Your task to perform on an android device: What's the weather going to be tomorrow? Image 0: 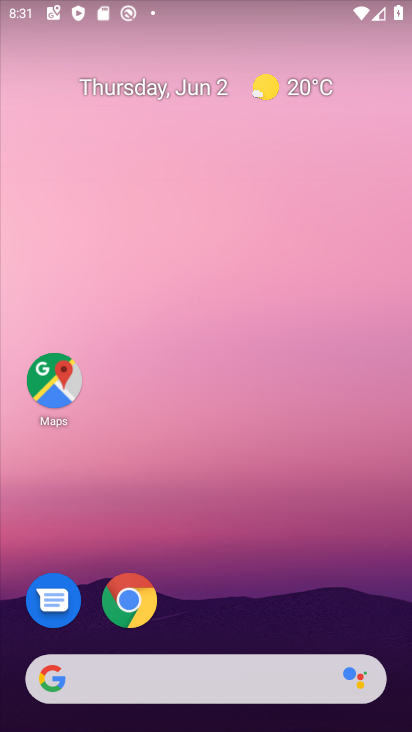
Step 0: click (273, 91)
Your task to perform on an android device: What's the weather going to be tomorrow? Image 1: 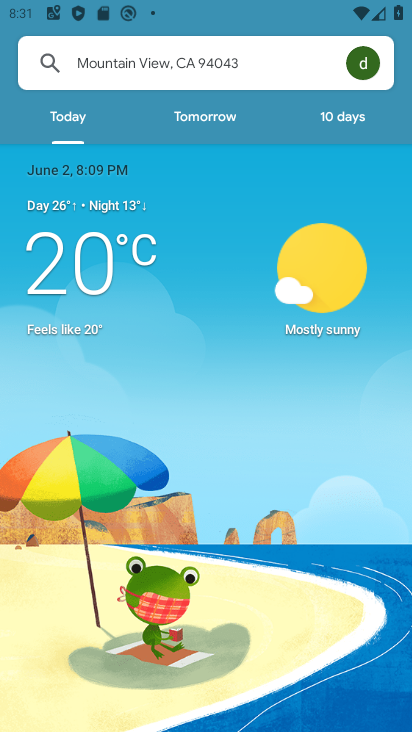
Step 1: click (212, 116)
Your task to perform on an android device: What's the weather going to be tomorrow? Image 2: 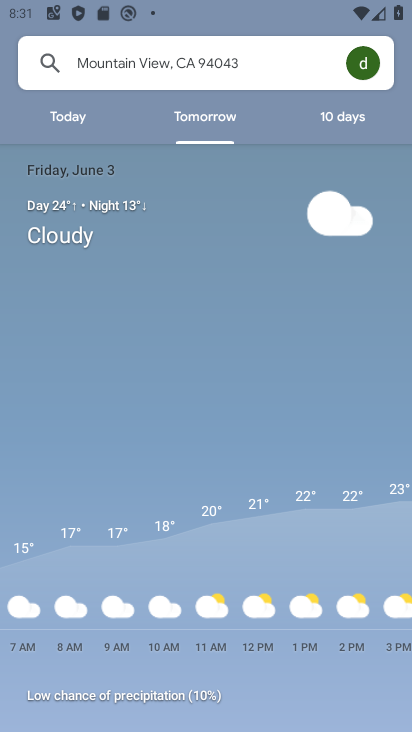
Step 2: task complete